Your task to perform on an android device: open a bookmark in the chrome app Image 0: 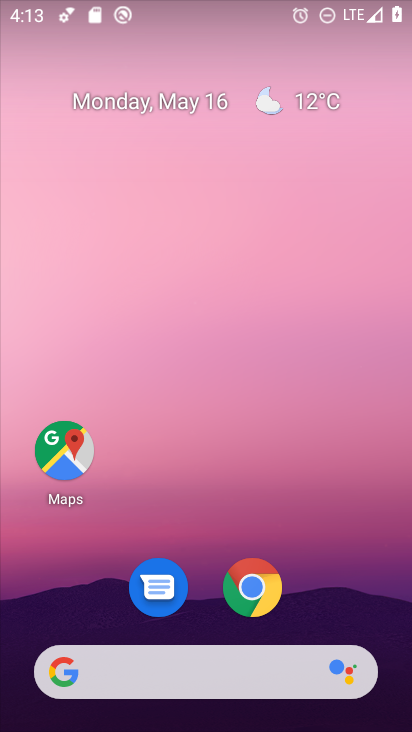
Step 0: click (260, 574)
Your task to perform on an android device: open a bookmark in the chrome app Image 1: 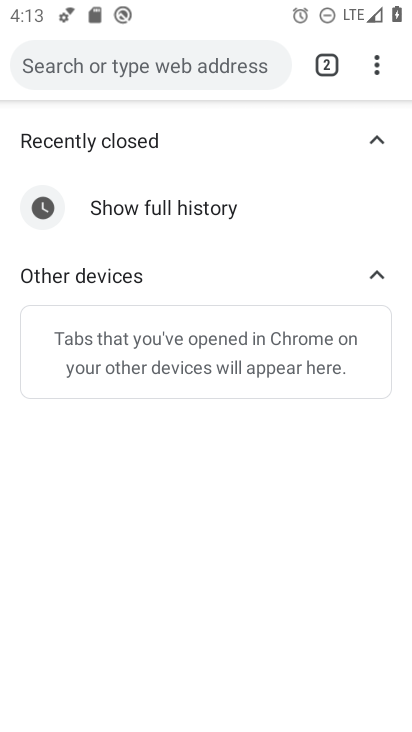
Step 1: click (377, 58)
Your task to perform on an android device: open a bookmark in the chrome app Image 2: 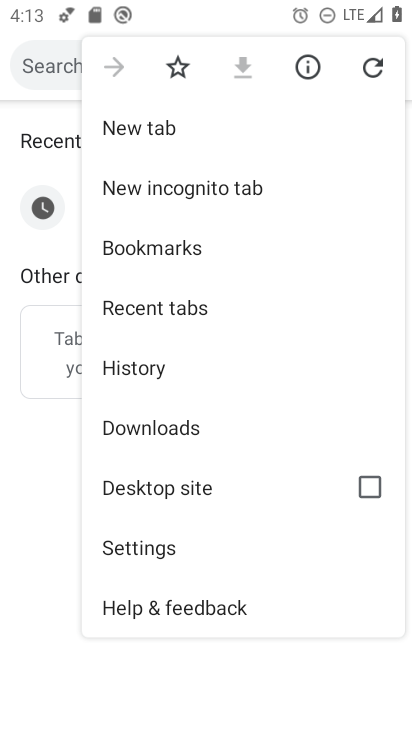
Step 2: click (138, 251)
Your task to perform on an android device: open a bookmark in the chrome app Image 3: 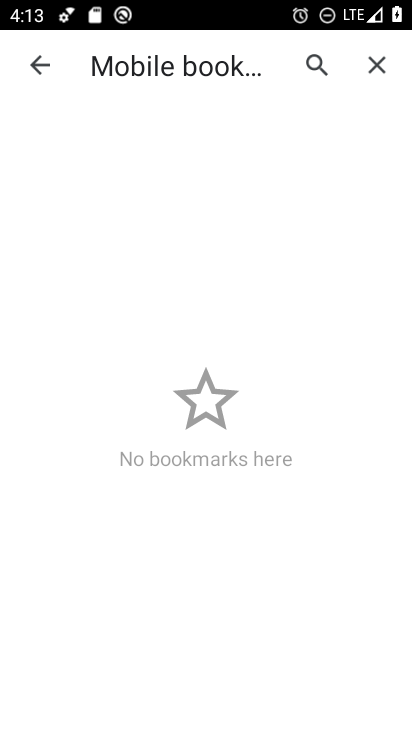
Step 3: task complete